Your task to perform on an android device: Open ESPN.com Image 0: 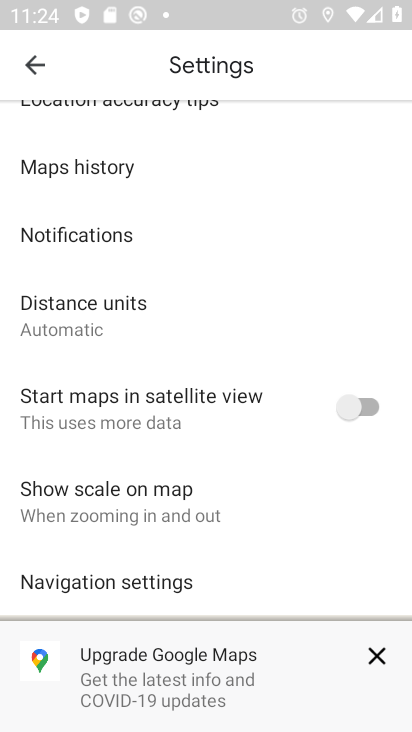
Step 0: press home button
Your task to perform on an android device: Open ESPN.com Image 1: 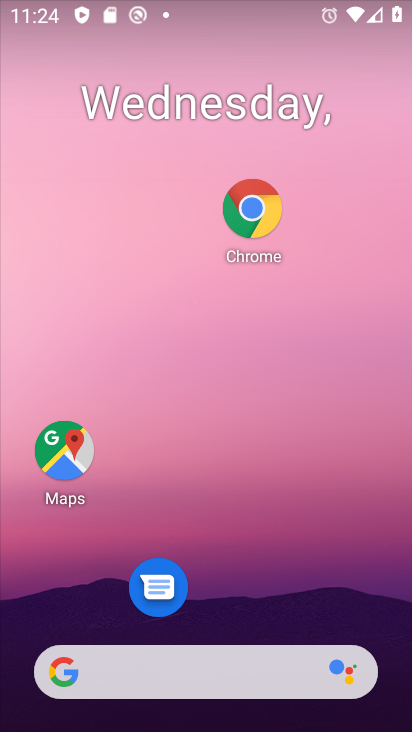
Step 1: click (245, 249)
Your task to perform on an android device: Open ESPN.com Image 2: 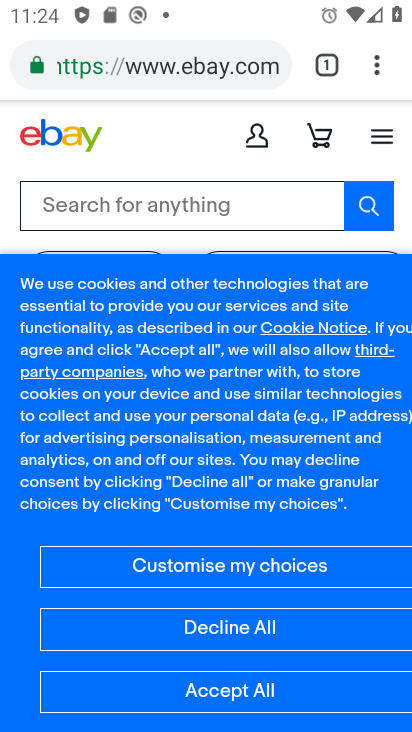
Step 2: press back button
Your task to perform on an android device: Open ESPN.com Image 3: 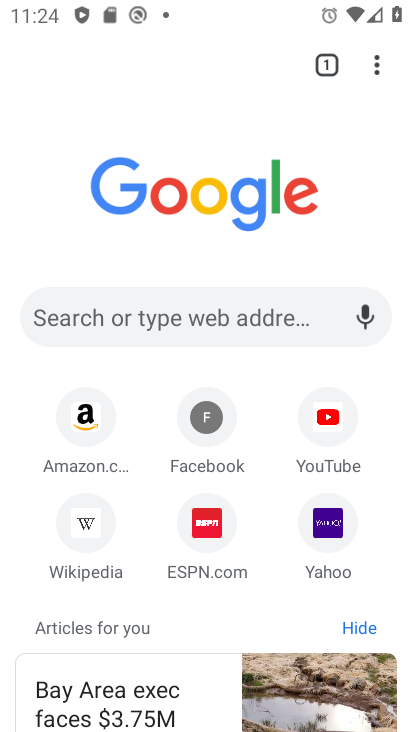
Step 3: click (197, 558)
Your task to perform on an android device: Open ESPN.com Image 4: 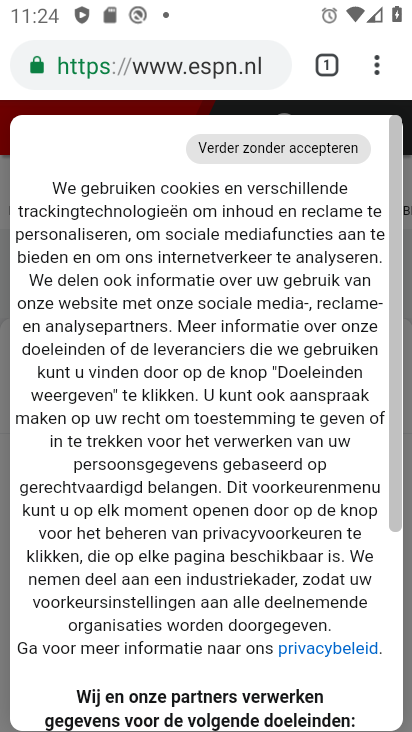
Step 4: task complete